Your task to perform on an android device: create a new album in the google photos Image 0: 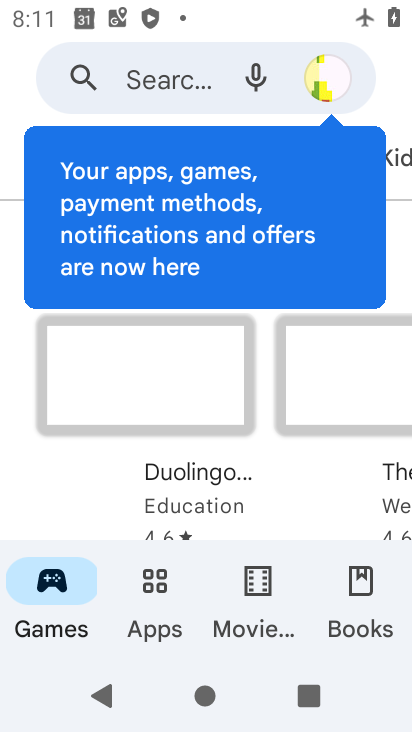
Step 0: press home button
Your task to perform on an android device: create a new album in the google photos Image 1: 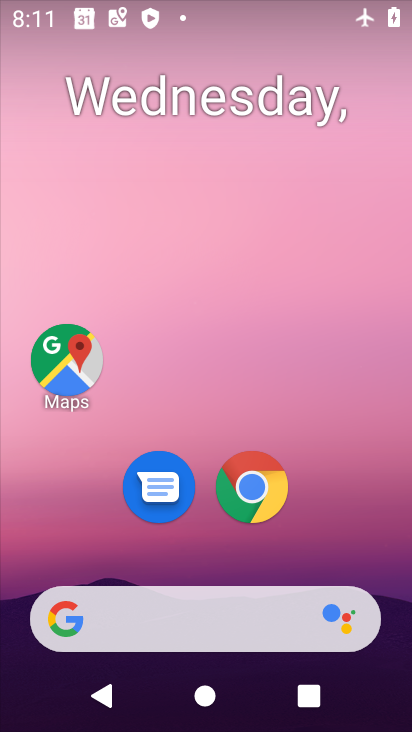
Step 1: drag from (390, 527) to (372, 244)
Your task to perform on an android device: create a new album in the google photos Image 2: 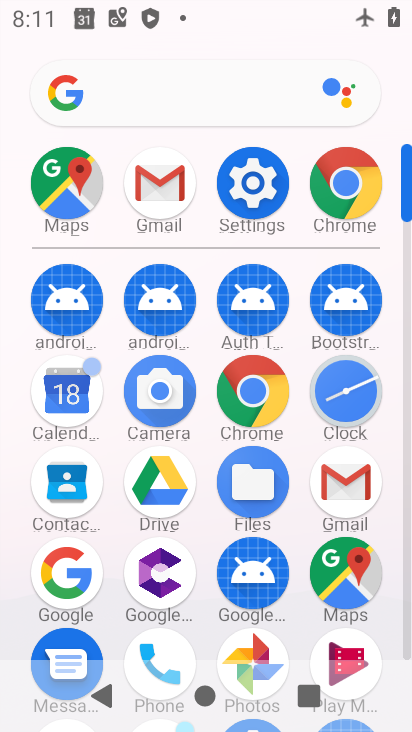
Step 2: drag from (393, 628) to (387, 517)
Your task to perform on an android device: create a new album in the google photos Image 3: 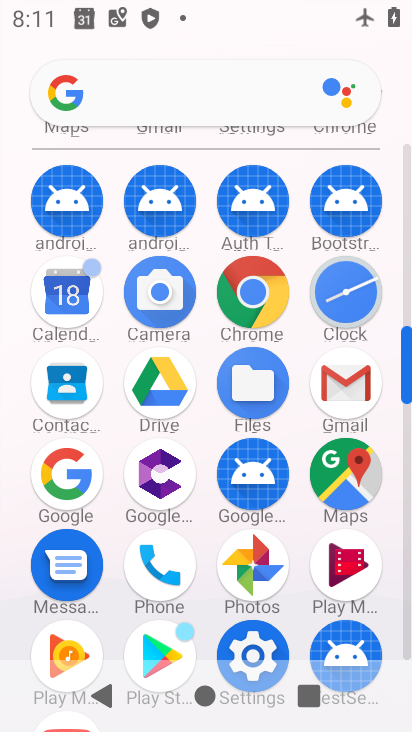
Step 3: drag from (388, 596) to (384, 491)
Your task to perform on an android device: create a new album in the google photos Image 4: 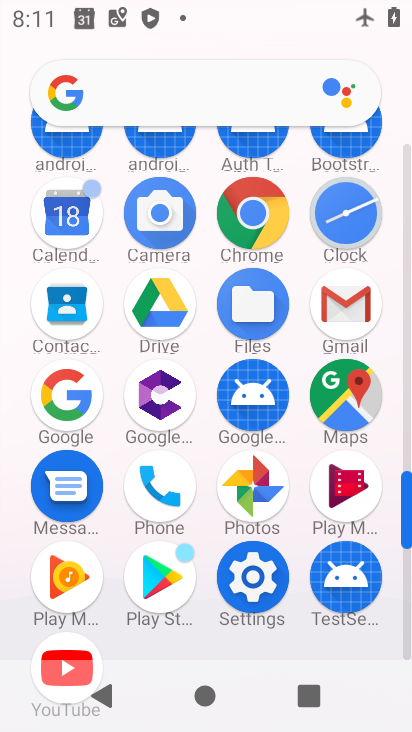
Step 4: click (242, 498)
Your task to perform on an android device: create a new album in the google photos Image 5: 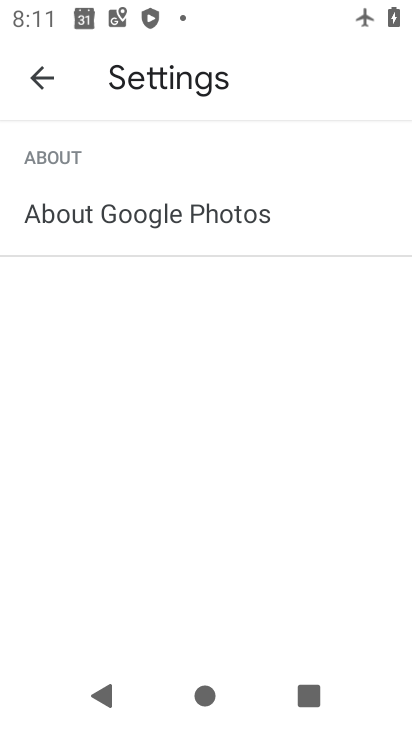
Step 5: click (59, 87)
Your task to perform on an android device: create a new album in the google photos Image 6: 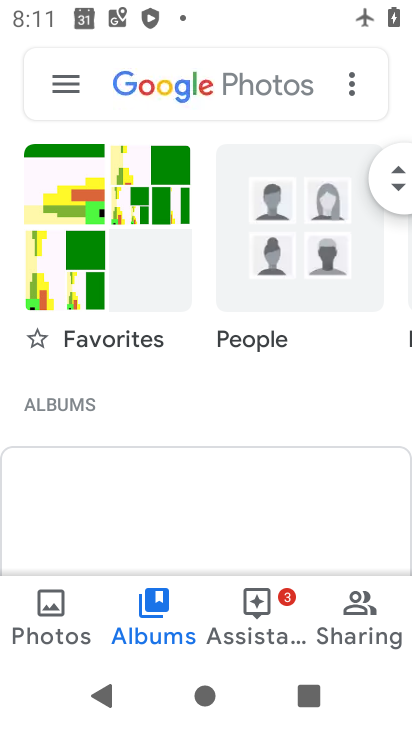
Step 6: click (355, 93)
Your task to perform on an android device: create a new album in the google photos Image 7: 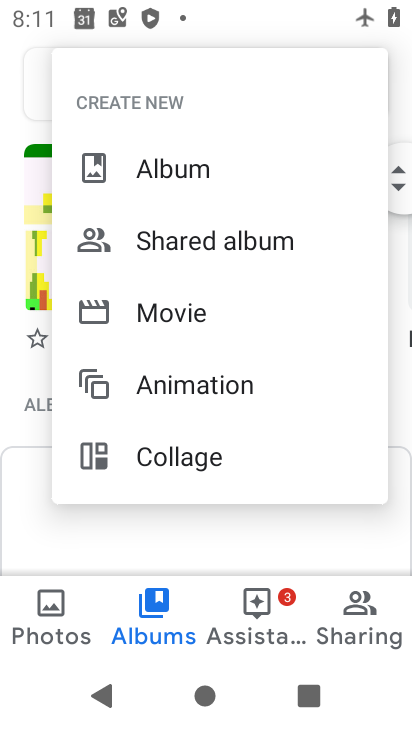
Step 7: click (197, 169)
Your task to perform on an android device: create a new album in the google photos Image 8: 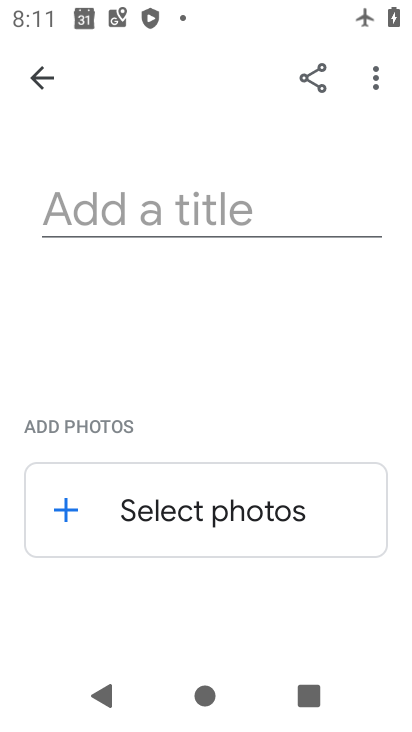
Step 8: click (209, 203)
Your task to perform on an android device: create a new album in the google photos Image 9: 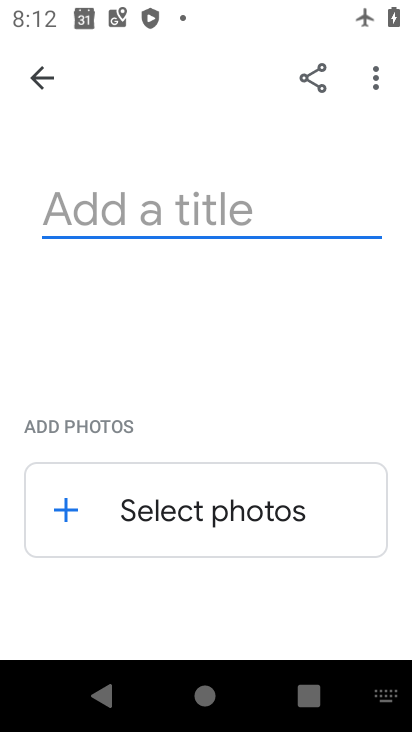
Step 9: type "lol"
Your task to perform on an android device: create a new album in the google photos Image 10: 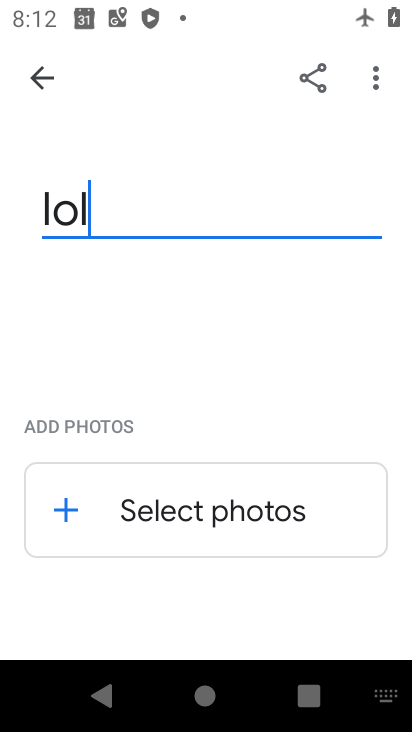
Step 10: click (97, 515)
Your task to perform on an android device: create a new album in the google photos Image 11: 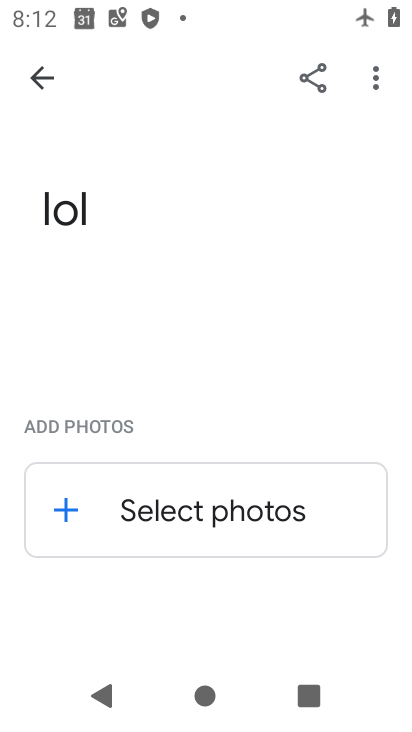
Step 11: click (71, 503)
Your task to perform on an android device: create a new album in the google photos Image 12: 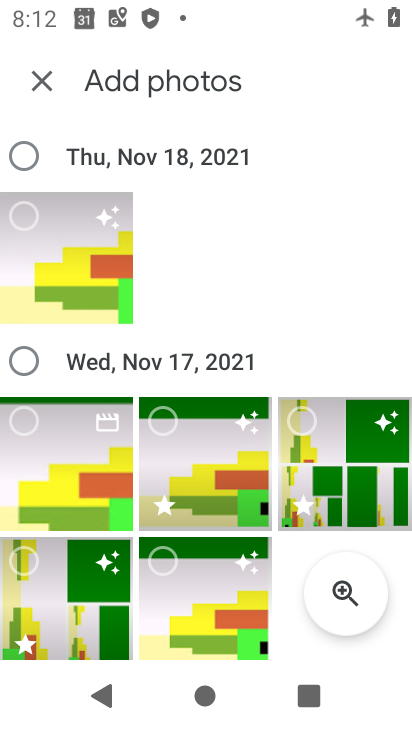
Step 12: click (62, 268)
Your task to perform on an android device: create a new album in the google photos Image 13: 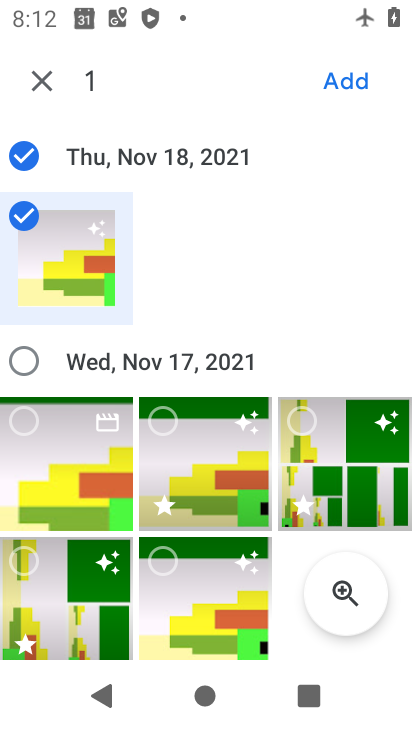
Step 13: click (353, 82)
Your task to perform on an android device: create a new album in the google photos Image 14: 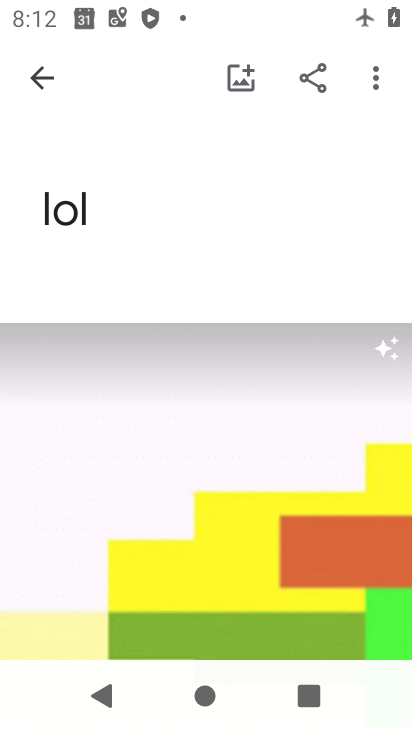
Step 14: task complete